Your task to perform on an android device: Go to Amazon Image 0: 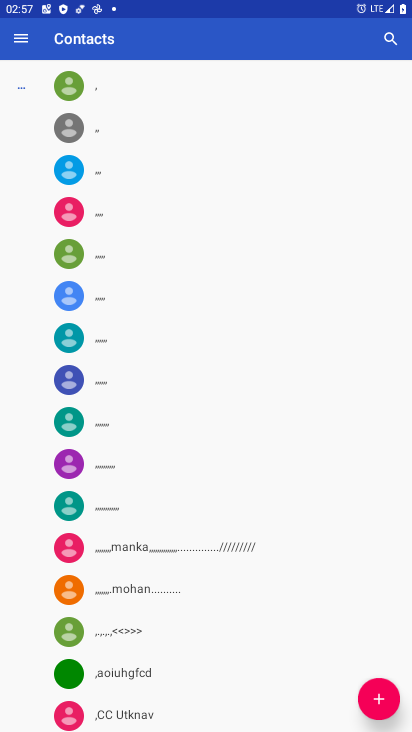
Step 0: press home button
Your task to perform on an android device: Go to Amazon Image 1: 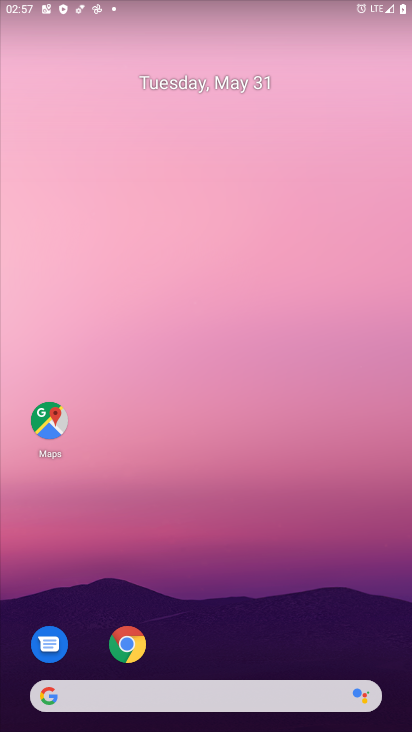
Step 1: click (126, 646)
Your task to perform on an android device: Go to Amazon Image 2: 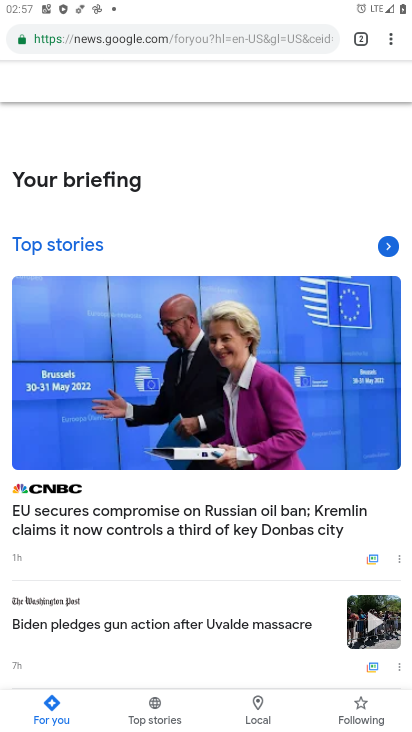
Step 2: click (206, 39)
Your task to perform on an android device: Go to Amazon Image 3: 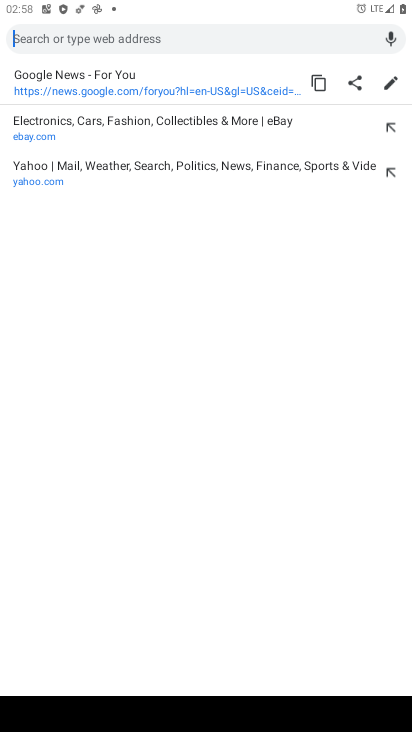
Step 3: type "amazon"
Your task to perform on an android device: Go to Amazon Image 4: 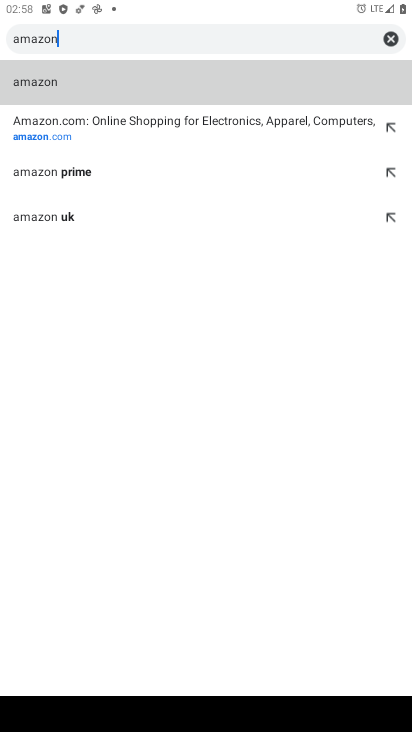
Step 4: click (41, 130)
Your task to perform on an android device: Go to Amazon Image 5: 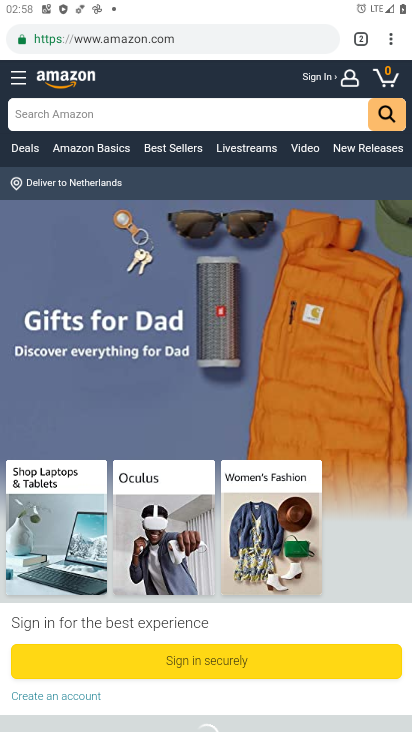
Step 5: task complete